Your task to perform on an android device: turn off picture-in-picture Image 0: 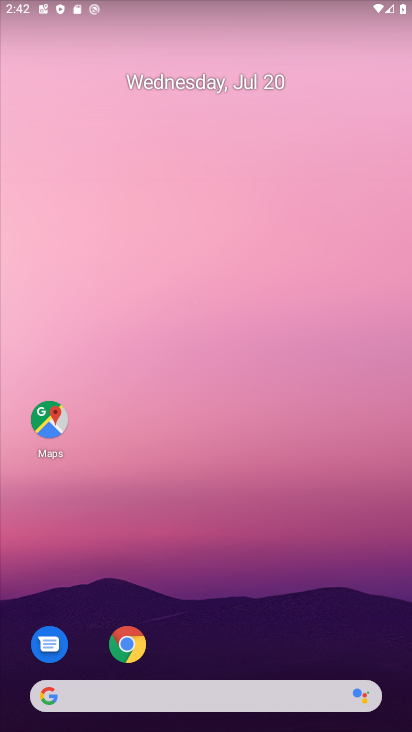
Step 0: drag from (276, 649) to (259, 127)
Your task to perform on an android device: turn off picture-in-picture Image 1: 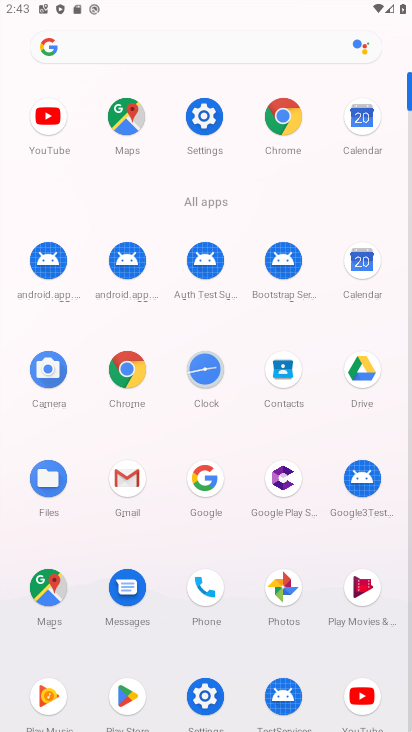
Step 1: click (195, 135)
Your task to perform on an android device: turn off picture-in-picture Image 2: 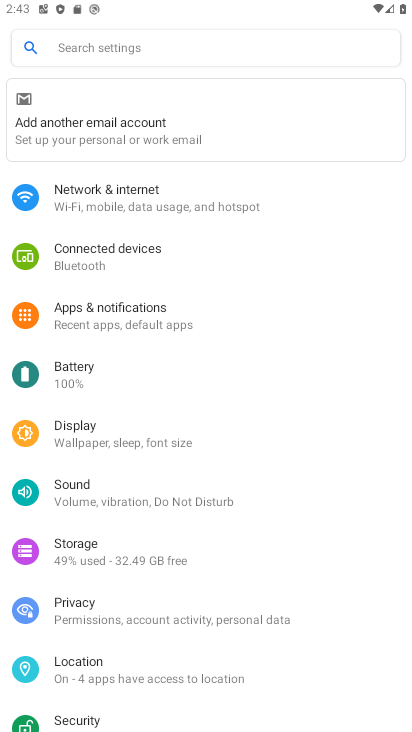
Step 2: click (134, 321)
Your task to perform on an android device: turn off picture-in-picture Image 3: 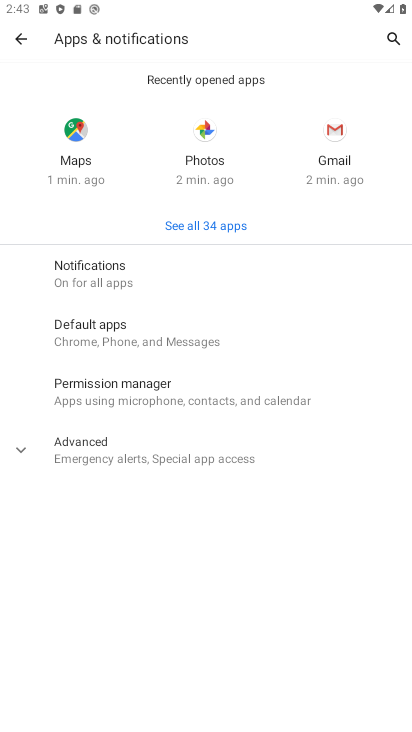
Step 3: click (125, 285)
Your task to perform on an android device: turn off picture-in-picture Image 4: 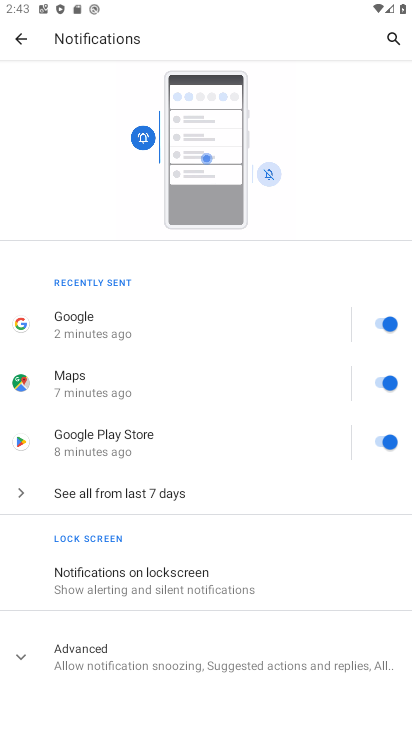
Step 4: click (174, 654)
Your task to perform on an android device: turn off picture-in-picture Image 5: 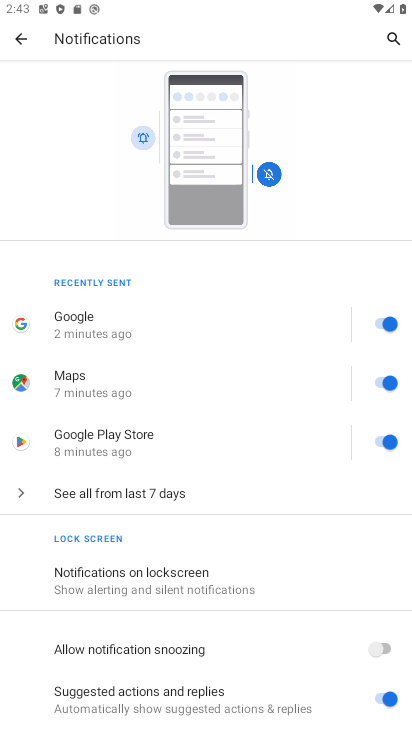
Step 5: task complete